Your task to perform on an android device: Open Android settings Image 0: 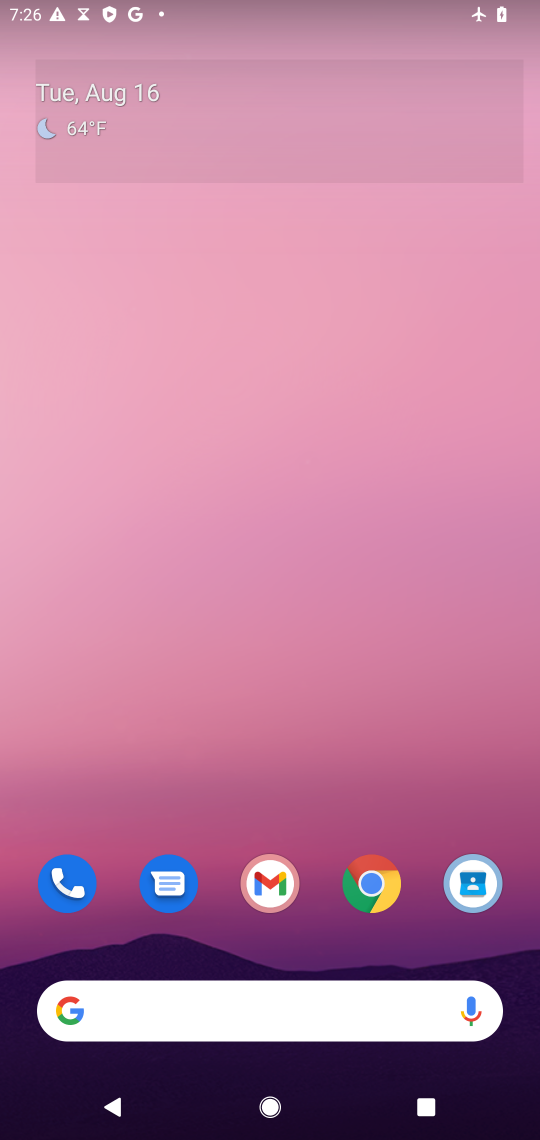
Step 0: drag from (254, 1004) to (273, 303)
Your task to perform on an android device: Open Android settings Image 1: 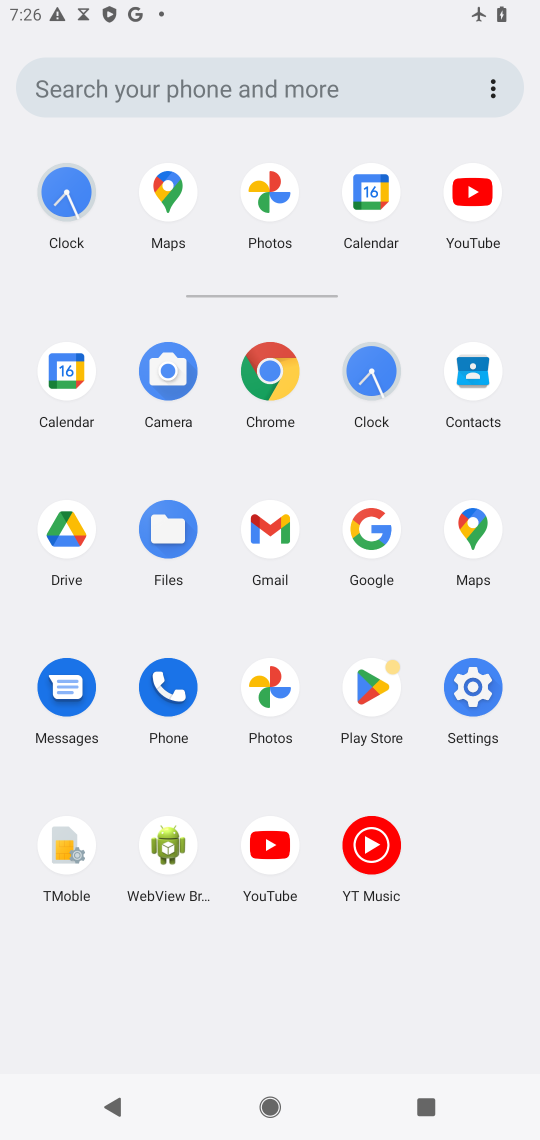
Step 1: click (472, 687)
Your task to perform on an android device: Open Android settings Image 2: 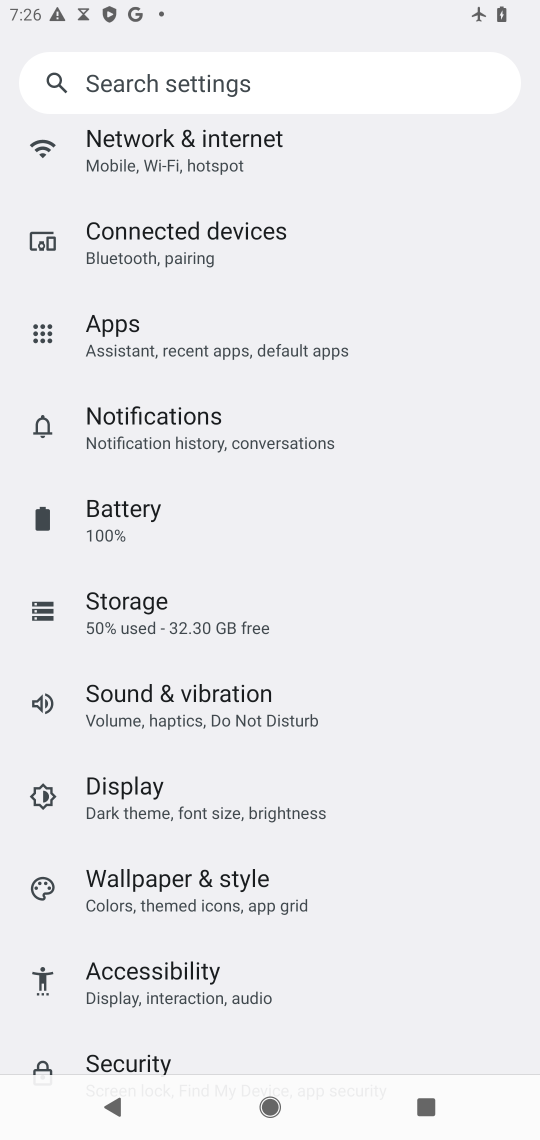
Step 2: task complete